Your task to perform on an android device: Check the weather Image 0: 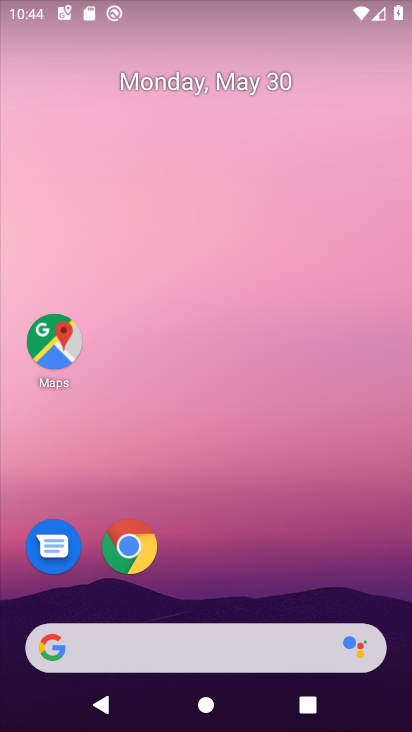
Step 0: click (185, 653)
Your task to perform on an android device: Check the weather Image 1: 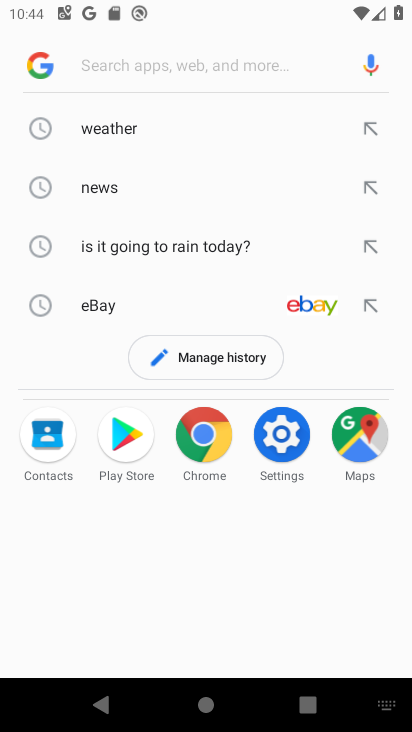
Step 1: click (109, 138)
Your task to perform on an android device: Check the weather Image 2: 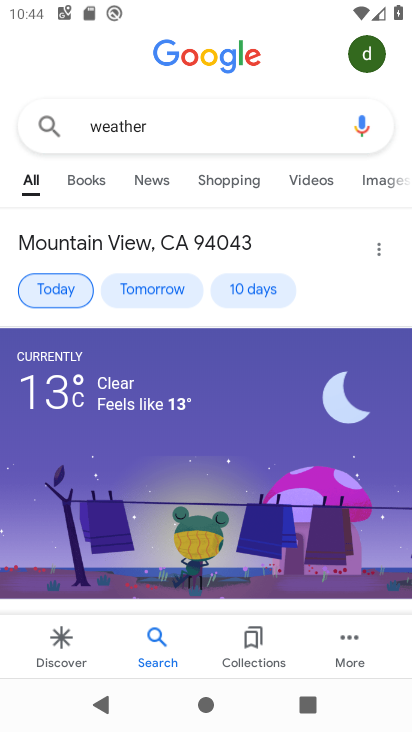
Step 2: task complete